Your task to perform on an android device: turn on translation in the chrome app Image 0: 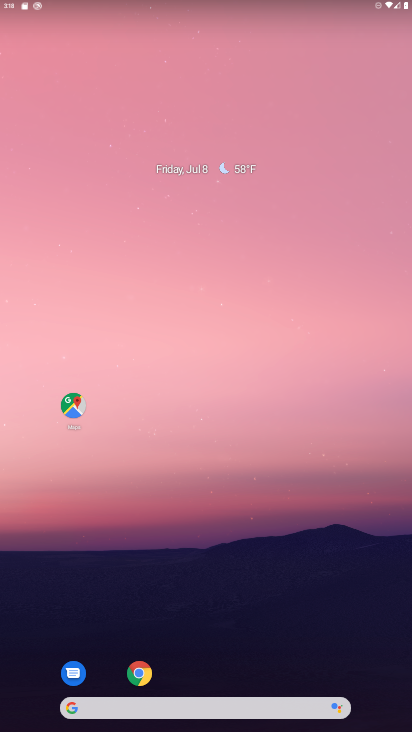
Step 0: click (139, 669)
Your task to perform on an android device: turn on translation in the chrome app Image 1: 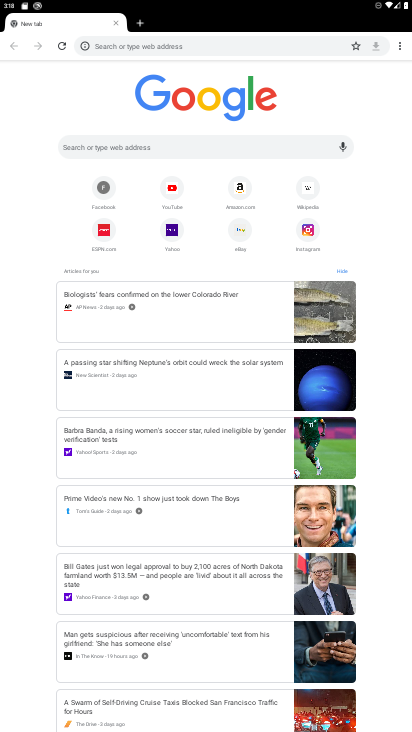
Step 1: click (395, 49)
Your task to perform on an android device: turn on translation in the chrome app Image 2: 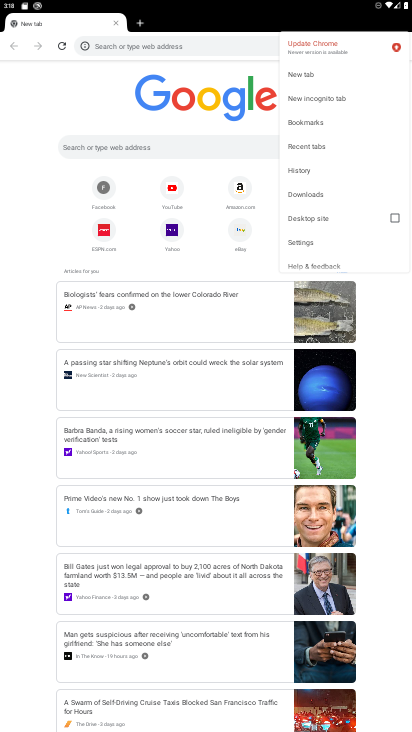
Step 2: click (304, 244)
Your task to perform on an android device: turn on translation in the chrome app Image 3: 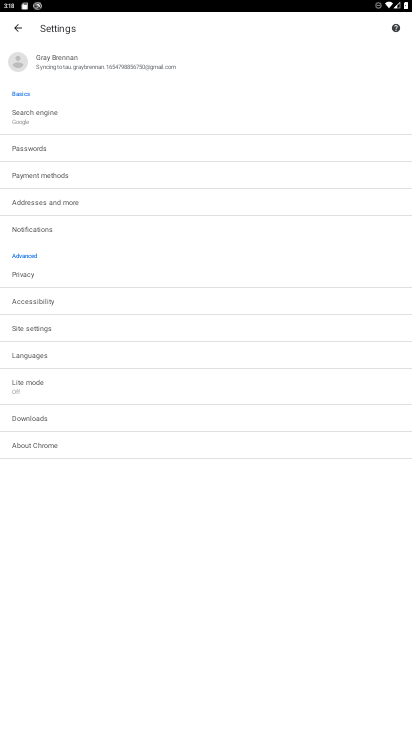
Step 3: click (42, 353)
Your task to perform on an android device: turn on translation in the chrome app Image 4: 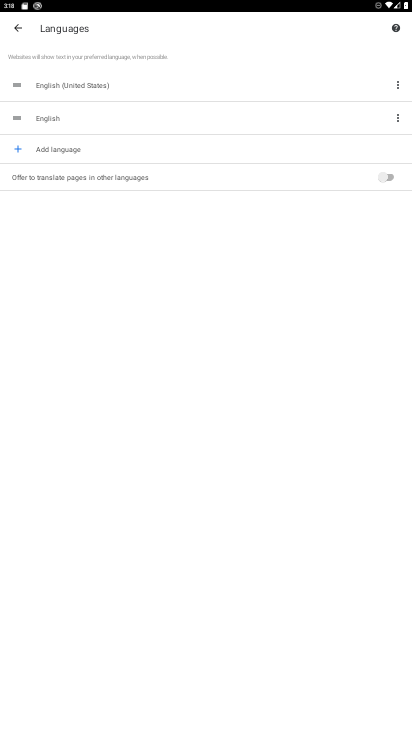
Step 4: click (392, 175)
Your task to perform on an android device: turn on translation in the chrome app Image 5: 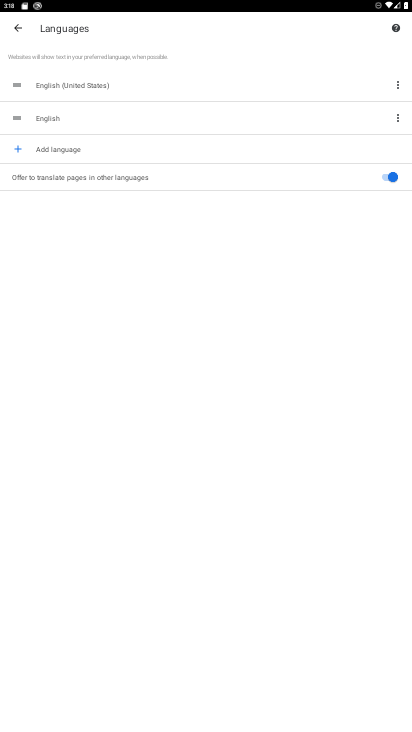
Step 5: task complete